Your task to perform on an android device: change the upload size in google photos Image 0: 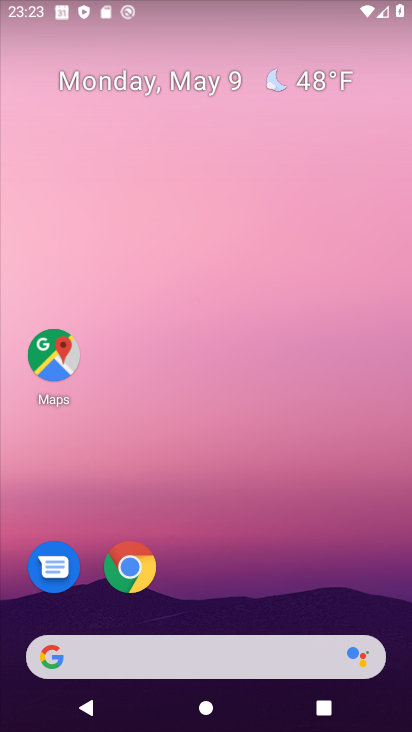
Step 0: drag from (253, 582) to (220, 70)
Your task to perform on an android device: change the upload size in google photos Image 1: 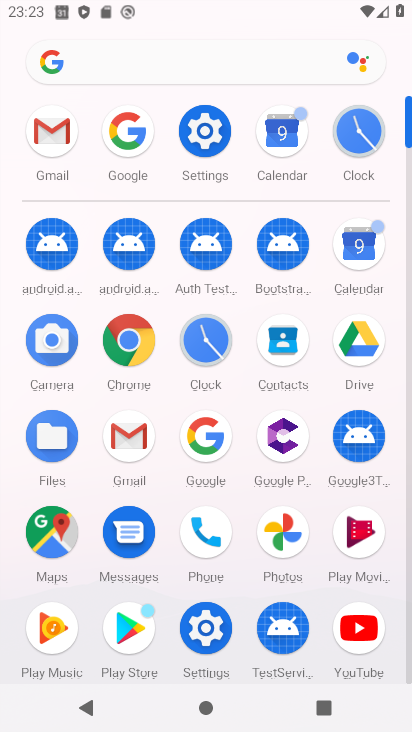
Step 1: click (285, 532)
Your task to perform on an android device: change the upload size in google photos Image 2: 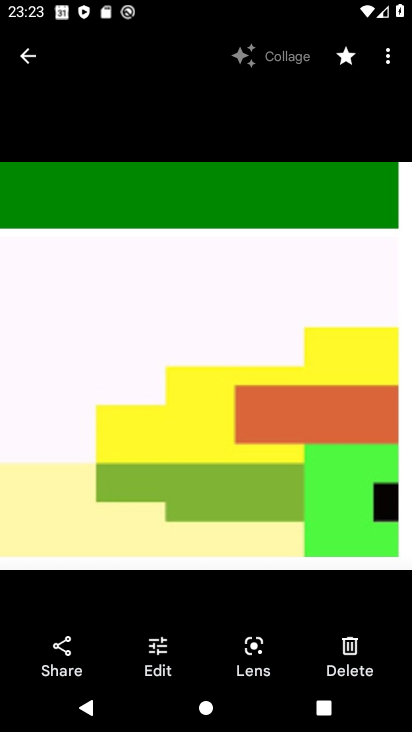
Step 2: press back button
Your task to perform on an android device: change the upload size in google photos Image 3: 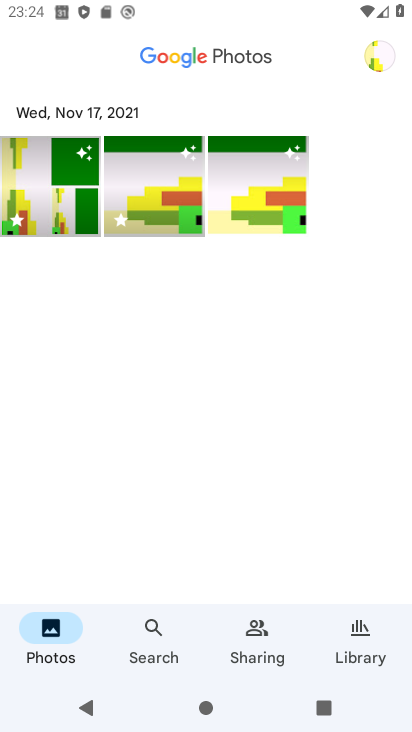
Step 3: click (375, 54)
Your task to perform on an android device: change the upload size in google photos Image 4: 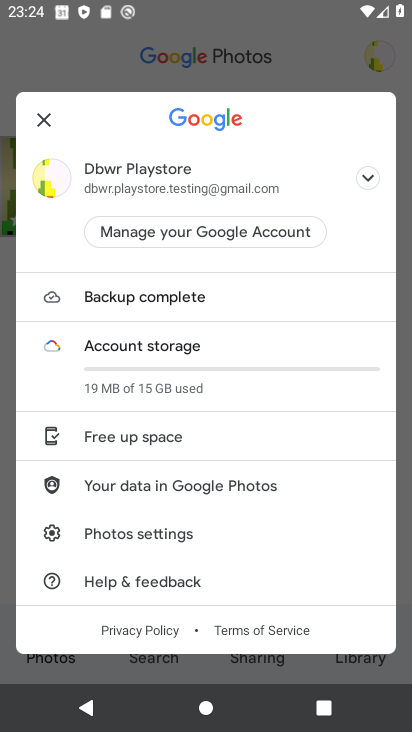
Step 4: drag from (149, 529) to (189, 452)
Your task to perform on an android device: change the upload size in google photos Image 5: 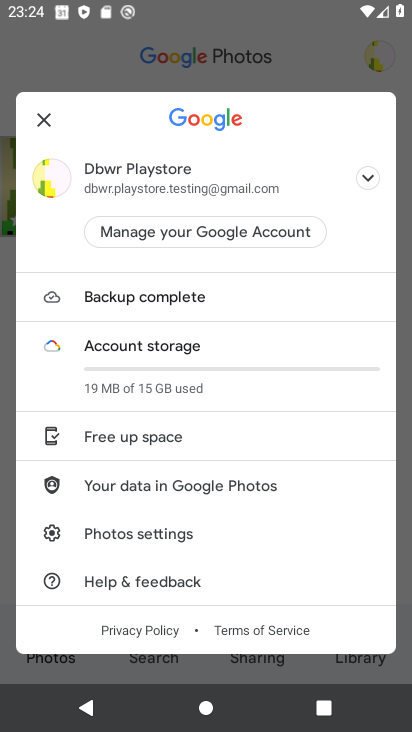
Step 5: click (157, 529)
Your task to perform on an android device: change the upload size in google photos Image 6: 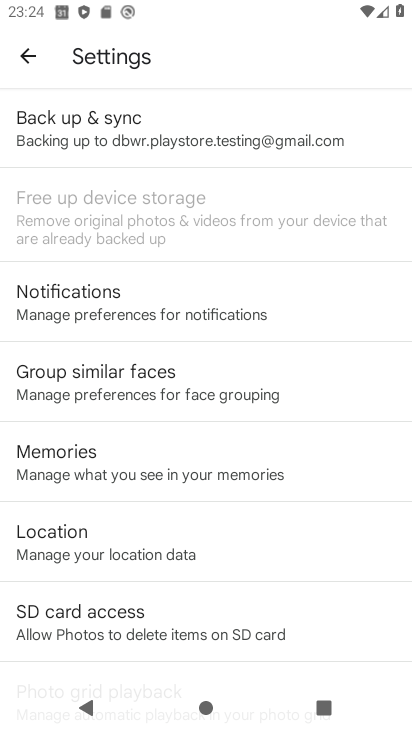
Step 6: click (113, 140)
Your task to perform on an android device: change the upload size in google photos Image 7: 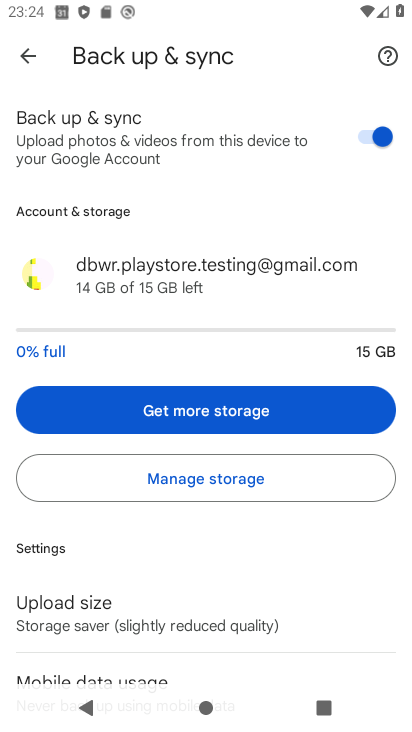
Step 7: drag from (152, 533) to (200, 337)
Your task to perform on an android device: change the upload size in google photos Image 8: 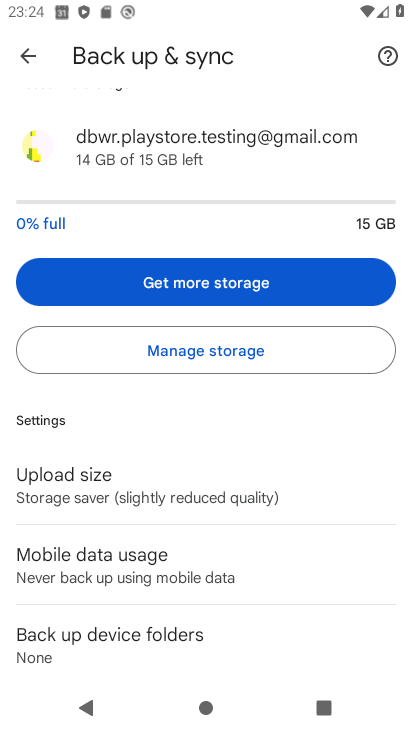
Step 8: click (146, 484)
Your task to perform on an android device: change the upload size in google photos Image 9: 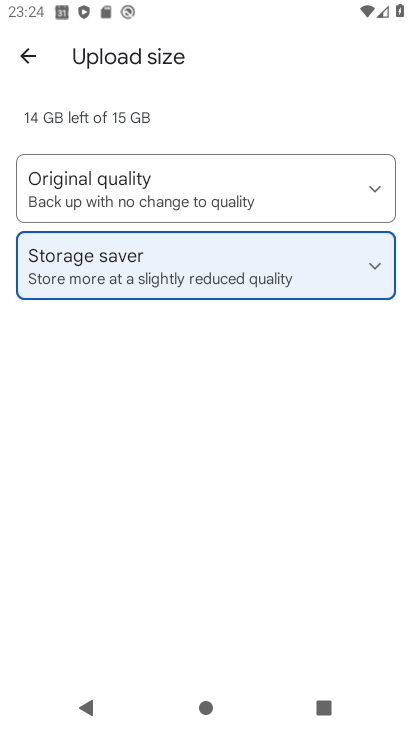
Step 9: click (146, 199)
Your task to perform on an android device: change the upload size in google photos Image 10: 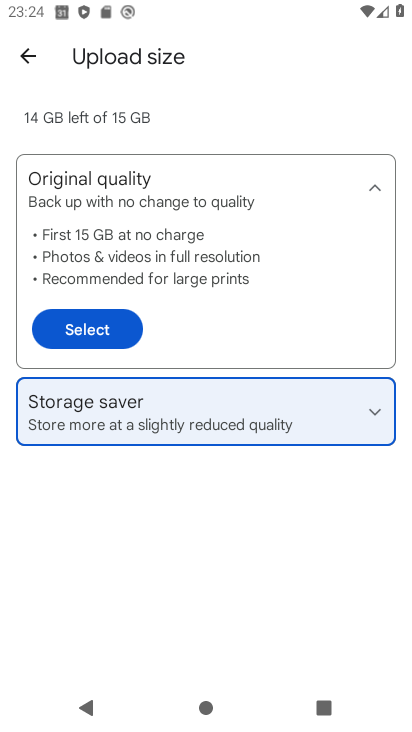
Step 10: click (110, 343)
Your task to perform on an android device: change the upload size in google photos Image 11: 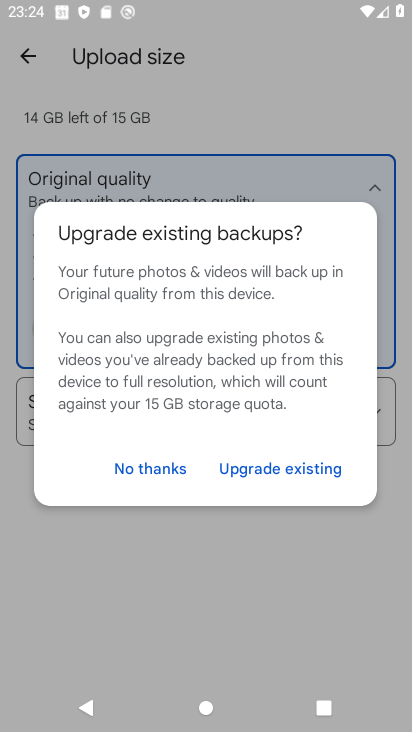
Step 11: click (171, 460)
Your task to perform on an android device: change the upload size in google photos Image 12: 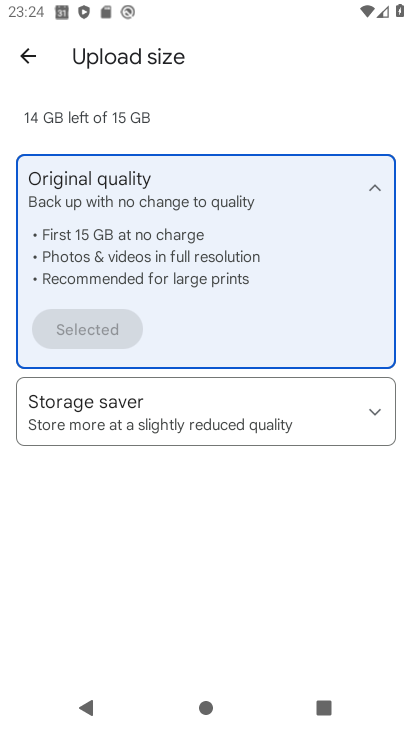
Step 12: task complete